Your task to perform on an android device: turn on showing notifications on the lock screen Image 0: 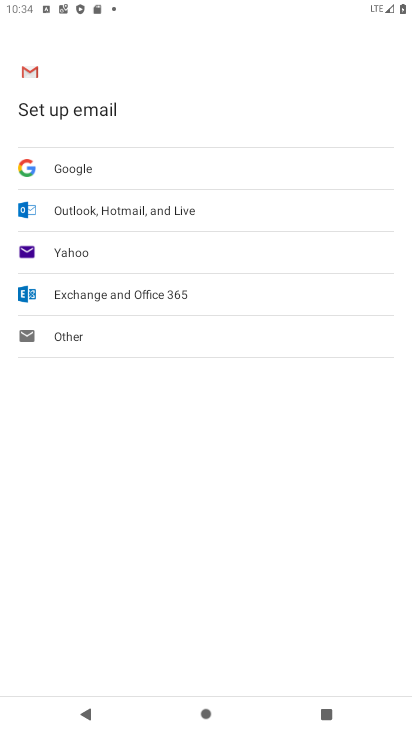
Step 0: press home button
Your task to perform on an android device: turn on showing notifications on the lock screen Image 1: 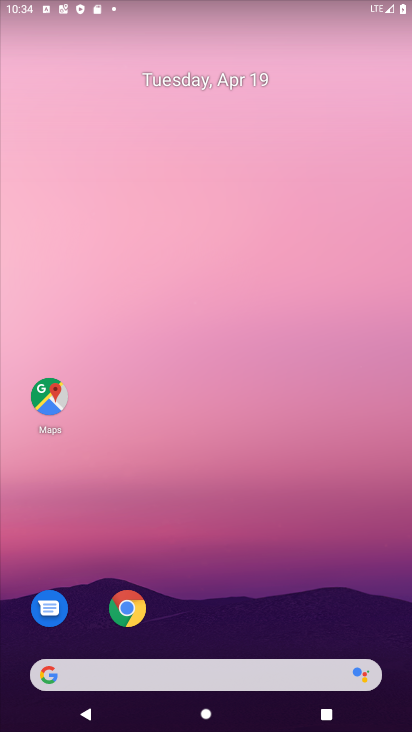
Step 1: drag from (345, 624) to (306, 119)
Your task to perform on an android device: turn on showing notifications on the lock screen Image 2: 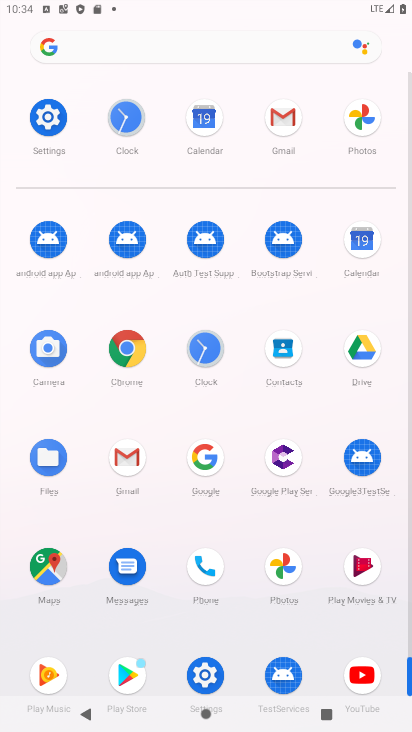
Step 2: click (205, 673)
Your task to perform on an android device: turn on showing notifications on the lock screen Image 3: 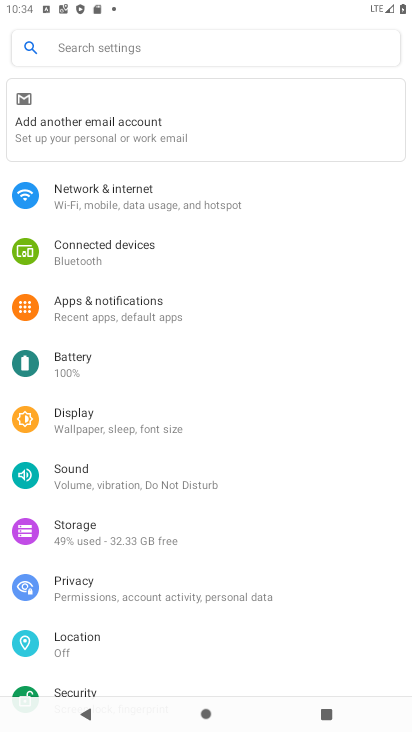
Step 3: click (128, 310)
Your task to perform on an android device: turn on showing notifications on the lock screen Image 4: 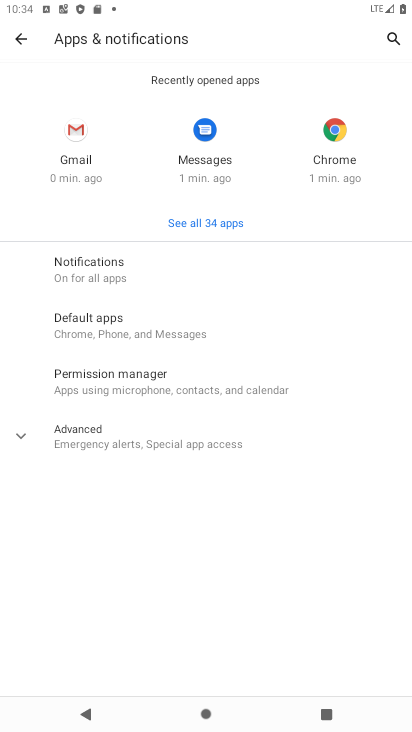
Step 4: click (89, 266)
Your task to perform on an android device: turn on showing notifications on the lock screen Image 5: 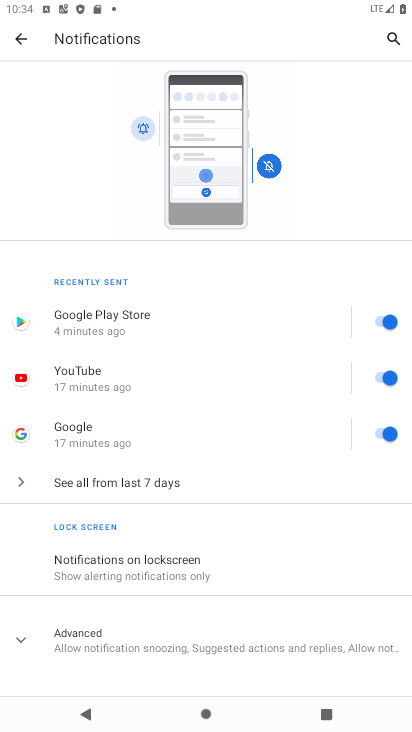
Step 5: click (124, 563)
Your task to perform on an android device: turn on showing notifications on the lock screen Image 6: 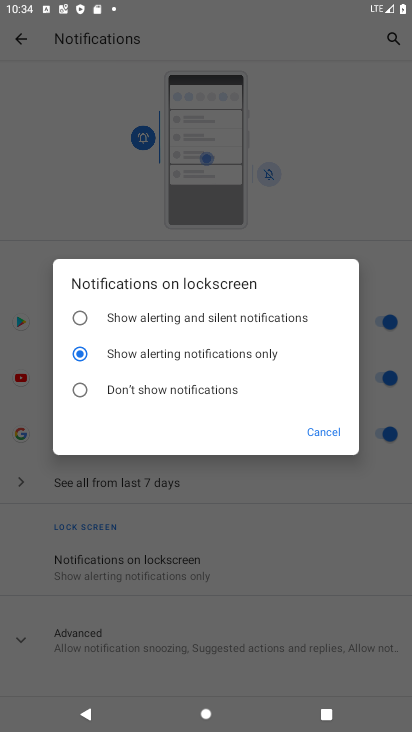
Step 6: click (79, 317)
Your task to perform on an android device: turn on showing notifications on the lock screen Image 7: 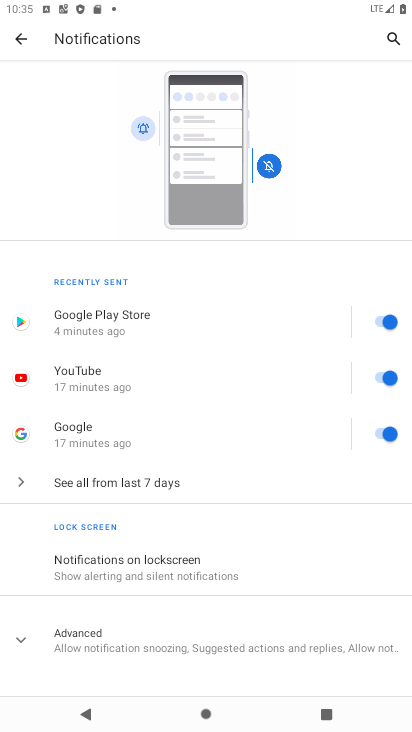
Step 7: task complete